Your task to perform on an android device: Play the last video I watched on Youtube Image 0: 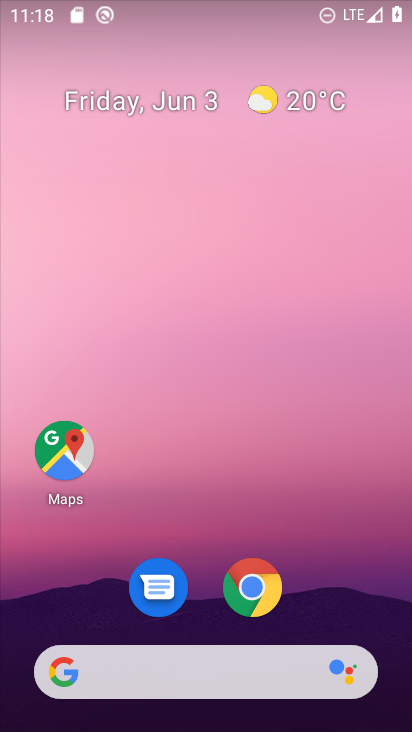
Step 0: drag from (347, 534) to (93, 5)
Your task to perform on an android device: Play the last video I watched on Youtube Image 1: 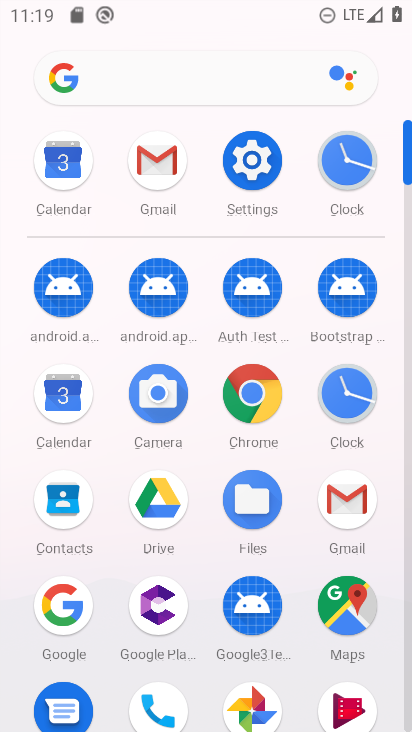
Step 1: drag from (220, 579) to (198, 77)
Your task to perform on an android device: Play the last video I watched on Youtube Image 2: 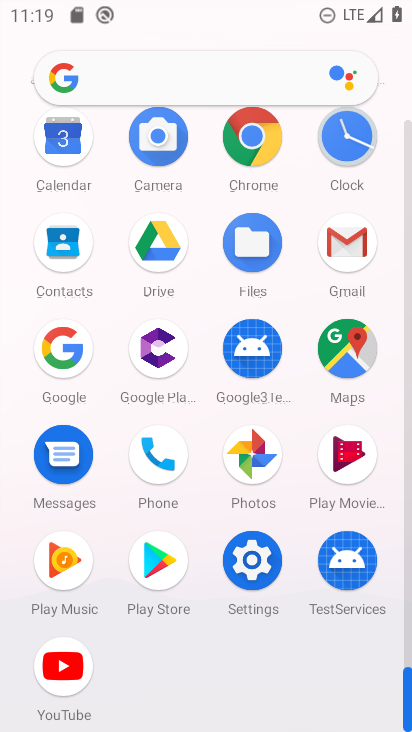
Step 2: click (53, 666)
Your task to perform on an android device: Play the last video I watched on Youtube Image 3: 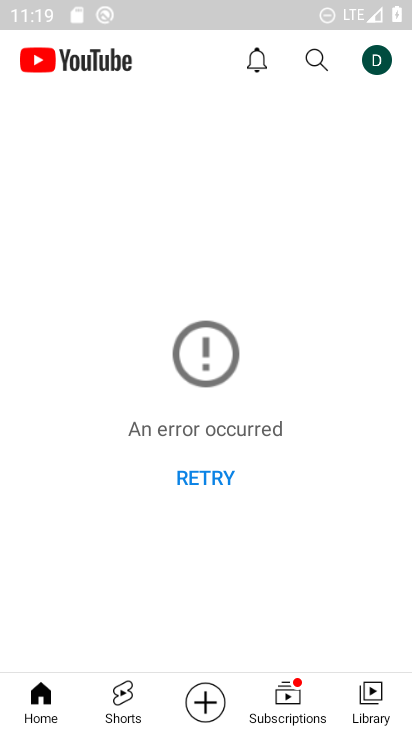
Step 3: click (373, 688)
Your task to perform on an android device: Play the last video I watched on Youtube Image 4: 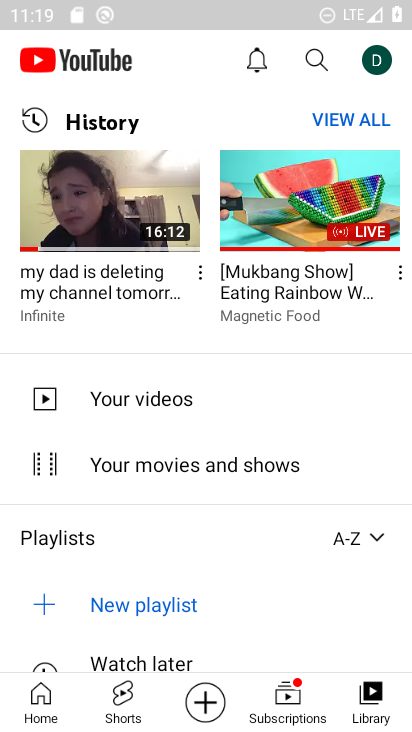
Step 4: click (102, 187)
Your task to perform on an android device: Play the last video I watched on Youtube Image 5: 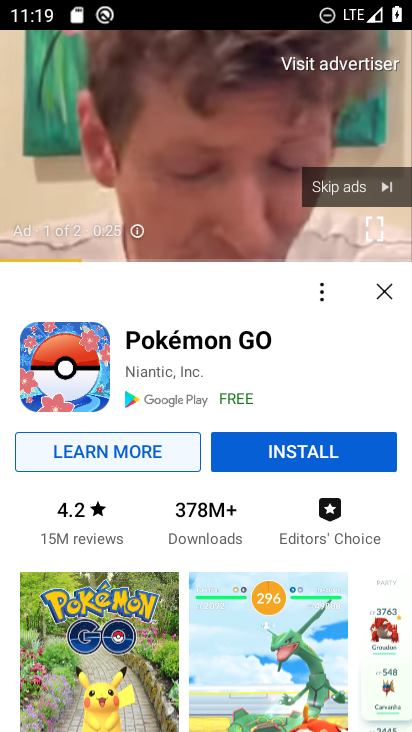
Step 5: click (366, 185)
Your task to perform on an android device: Play the last video I watched on Youtube Image 6: 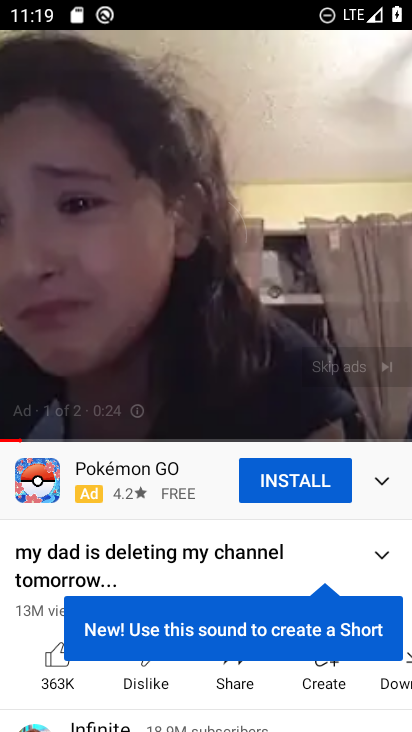
Step 6: click (177, 138)
Your task to perform on an android device: Play the last video I watched on Youtube Image 7: 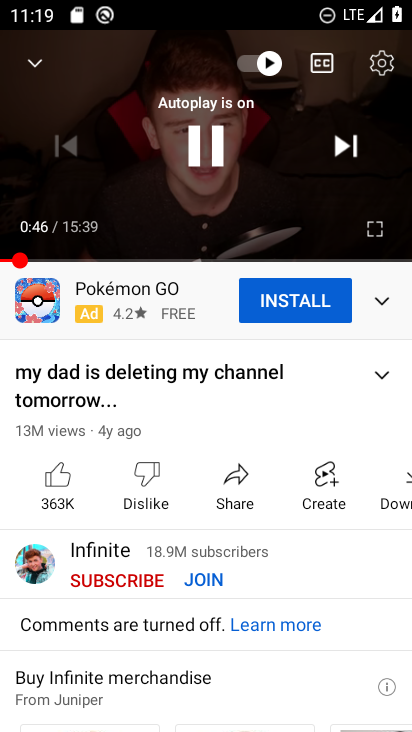
Step 7: click (178, 139)
Your task to perform on an android device: Play the last video I watched on Youtube Image 8: 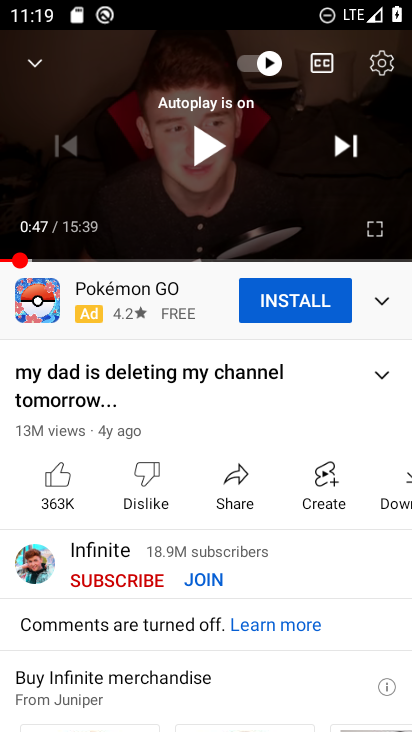
Step 8: task complete